Your task to perform on an android device: toggle improve location accuracy Image 0: 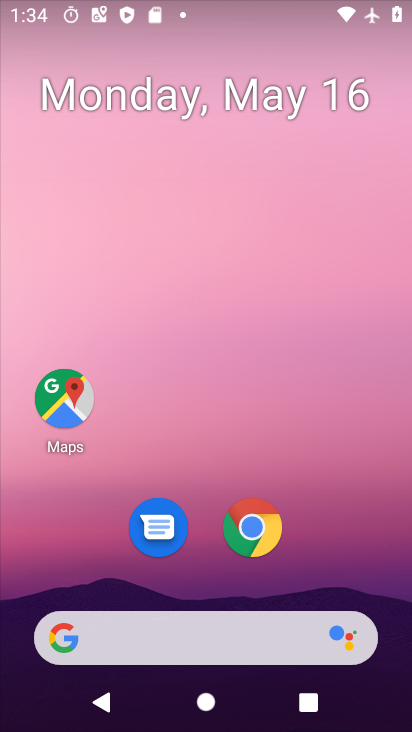
Step 0: press home button
Your task to perform on an android device: toggle improve location accuracy Image 1: 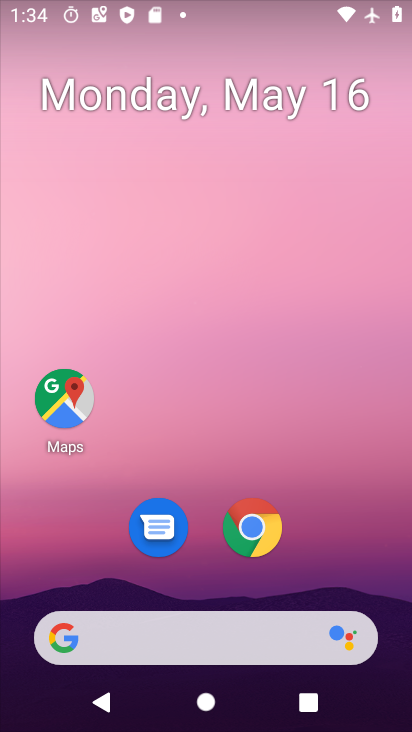
Step 1: drag from (157, 640) to (361, 67)
Your task to perform on an android device: toggle improve location accuracy Image 2: 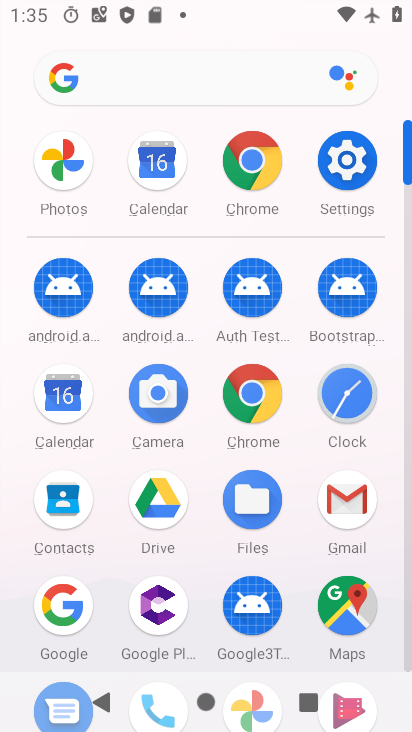
Step 2: click (337, 166)
Your task to perform on an android device: toggle improve location accuracy Image 3: 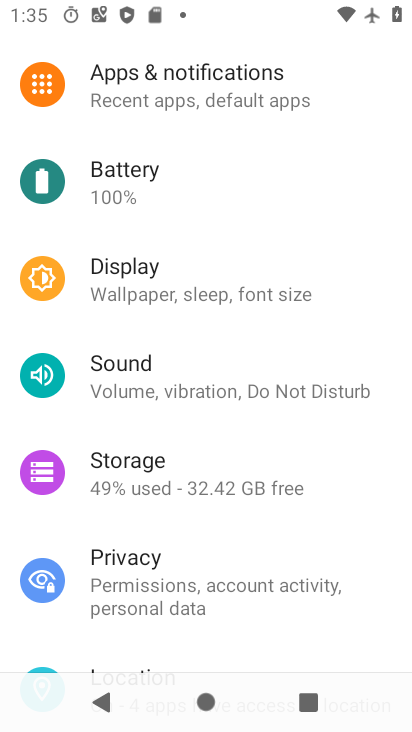
Step 3: drag from (289, 233) to (328, 119)
Your task to perform on an android device: toggle improve location accuracy Image 4: 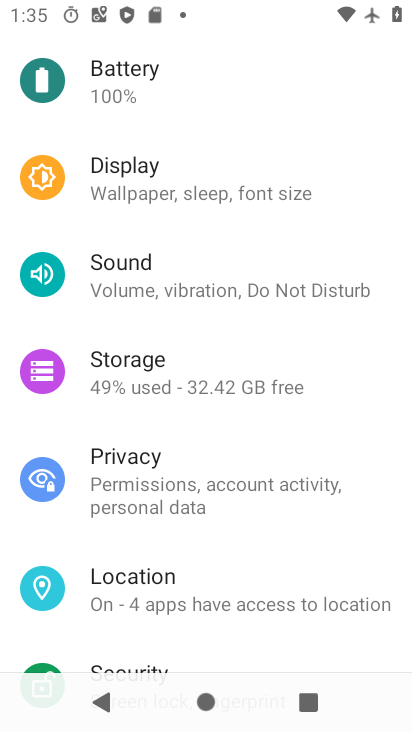
Step 4: click (178, 597)
Your task to perform on an android device: toggle improve location accuracy Image 5: 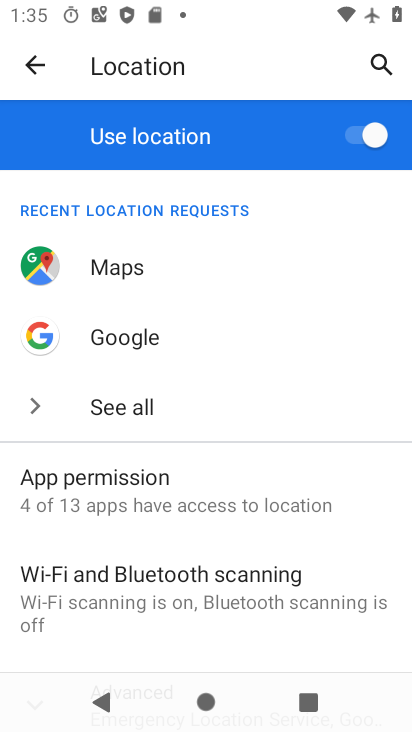
Step 5: drag from (178, 614) to (307, 183)
Your task to perform on an android device: toggle improve location accuracy Image 6: 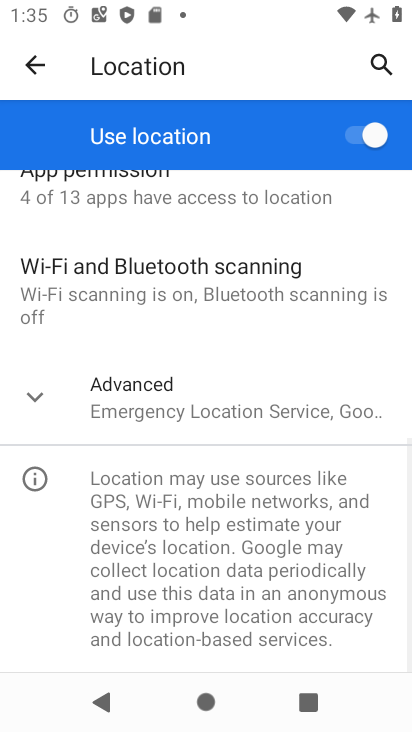
Step 6: click (139, 387)
Your task to perform on an android device: toggle improve location accuracy Image 7: 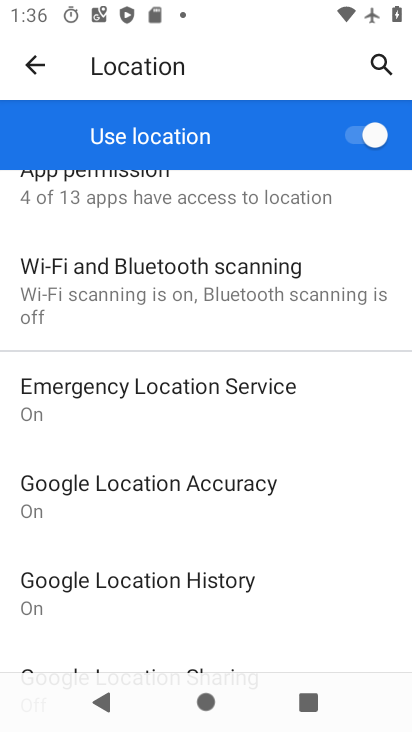
Step 7: click (179, 480)
Your task to perform on an android device: toggle improve location accuracy Image 8: 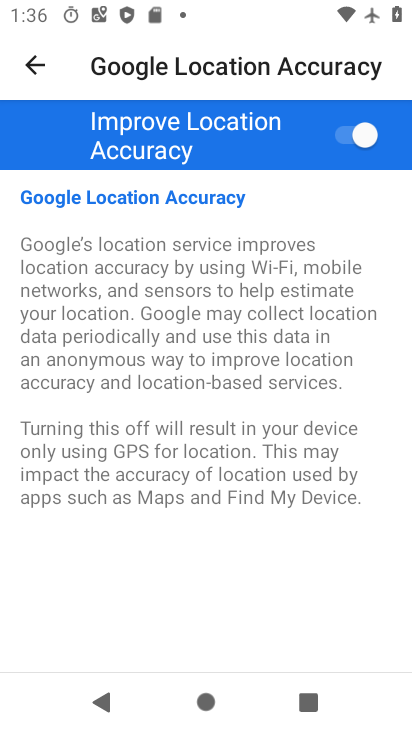
Step 8: click (346, 134)
Your task to perform on an android device: toggle improve location accuracy Image 9: 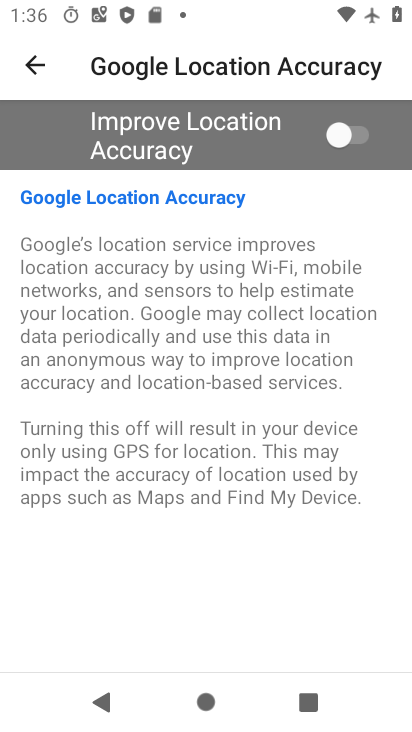
Step 9: task complete